Your task to perform on an android device: Open wifi settings Image 0: 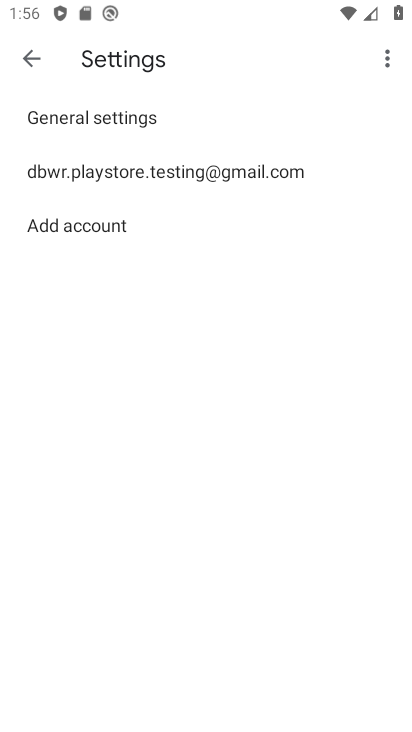
Step 0: drag from (243, 648) to (193, 234)
Your task to perform on an android device: Open wifi settings Image 1: 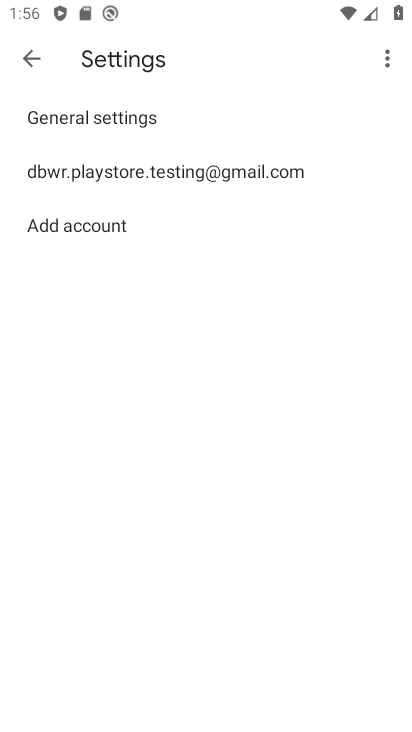
Step 1: press home button
Your task to perform on an android device: Open wifi settings Image 2: 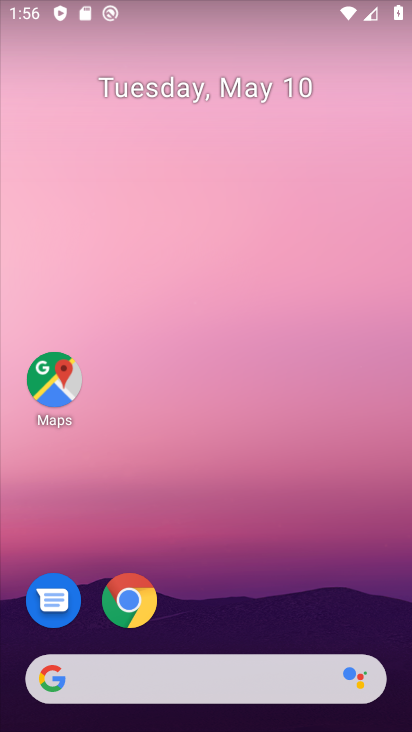
Step 2: drag from (151, 696) to (176, 206)
Your task to perform on an android device: Open wifi settings Image 3: 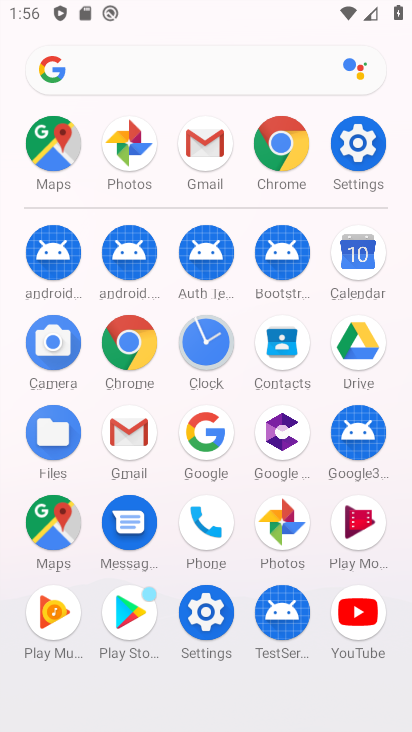
Step 3: click (361, 173)
Your task to perform on an android device: Open wifi settings Image 4: 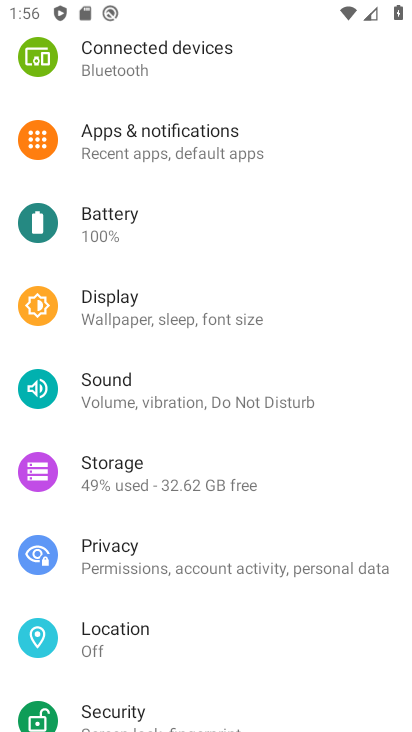
Step 4: drag from (234, 235) to (168, 681)
Your task to perform on an android device: Open wifi settings Image 5: 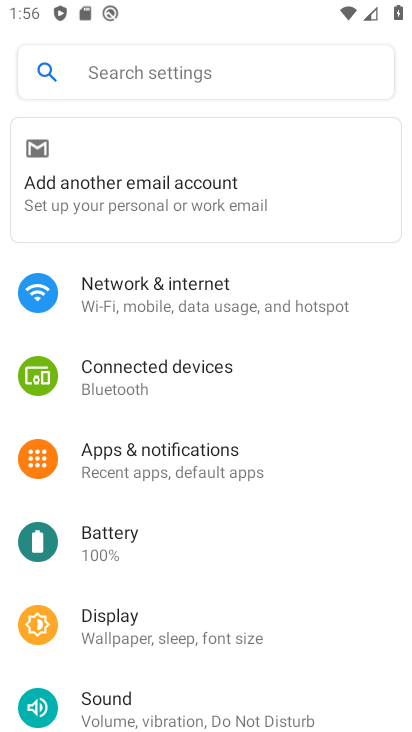
Step 5: drag from (160, 269) to (124, 593)
Your task to perform on an android device: Open wifi settings Image 6: 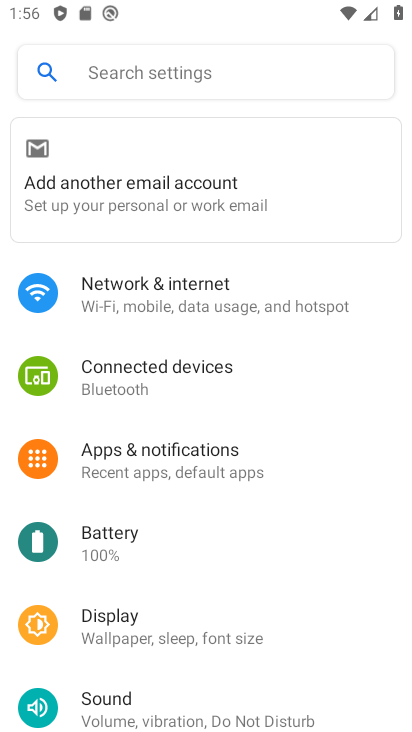
Step 6: click (259, 311)
Your task to perform on an android device: Open wifi settings Image 7: 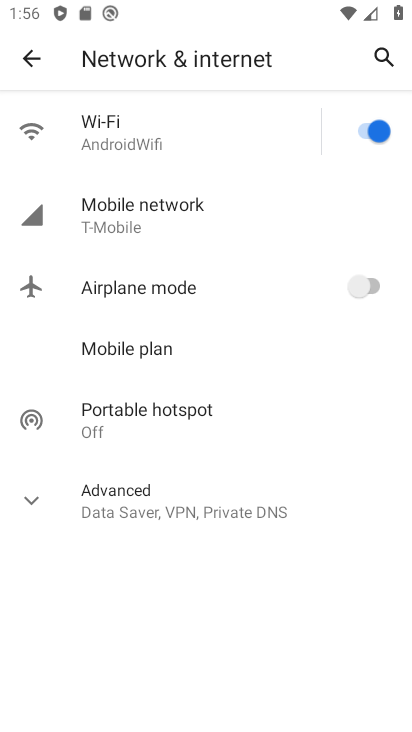
Step 7: click (168, 136)
Your task to perform on an android device: Open wifi settings Image 8: 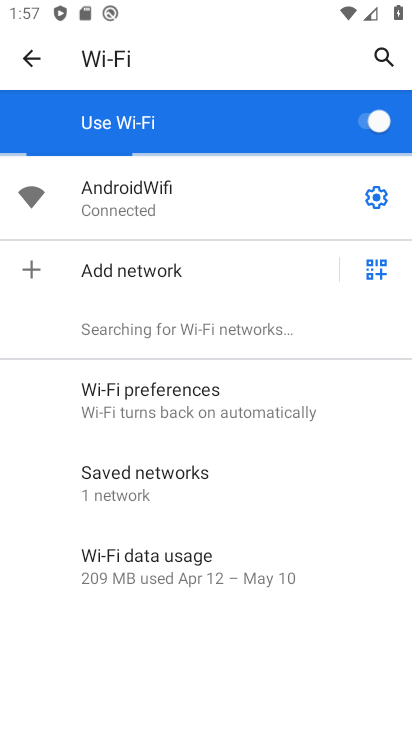
Step 8: task complete